Your task to perform on an android device: set the stopwatch Image 0: 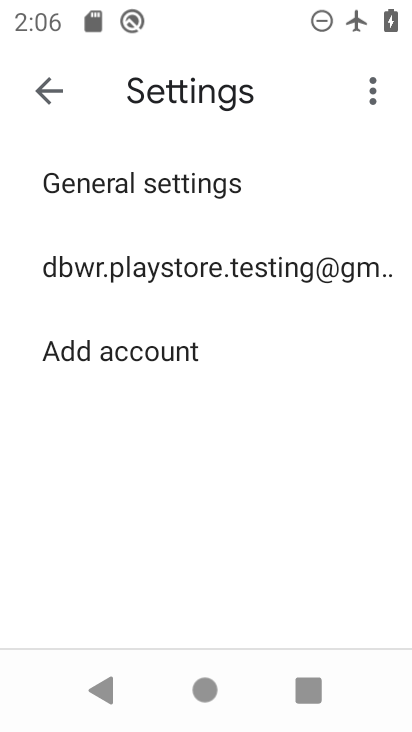
Step 0: press home button
Your task to perform on an android device: set the stopwatch Image 1: 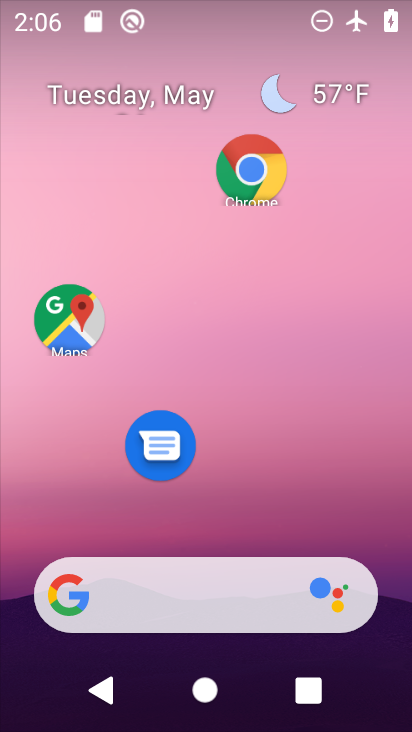
Step 1: drag from (241, 603) to (244, 61)
Your task to perform on an android device: set the stopwatch Image 2: 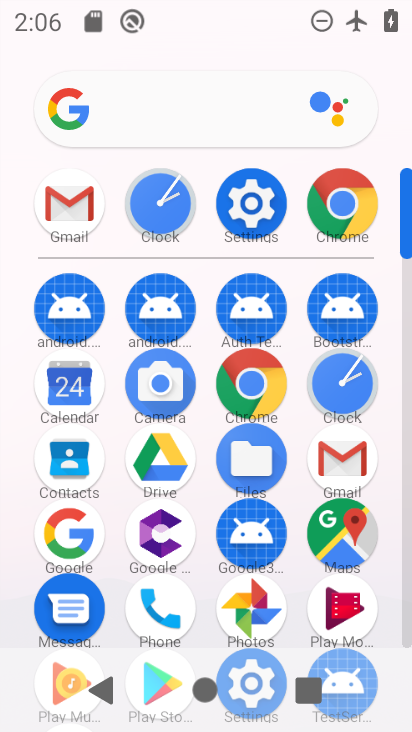
Step 2: click (351, 381)
Your task to perform on an android device: set the stopwatch Image 3: 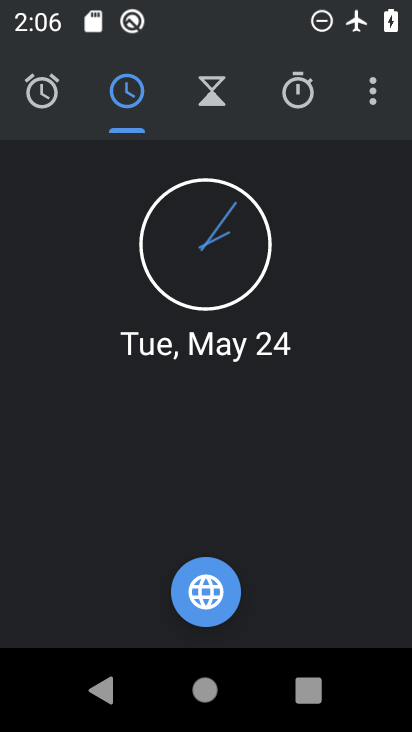
Step 3: click (303, 95)
Your task to perform on an android device: set the stopwatch Image 4: 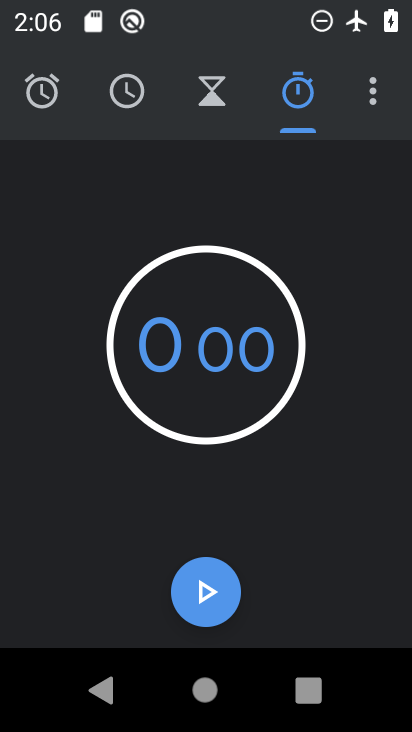
Step 4: click (205, 341)
Your task to perform on an android device: set the stopwatch Image 5: 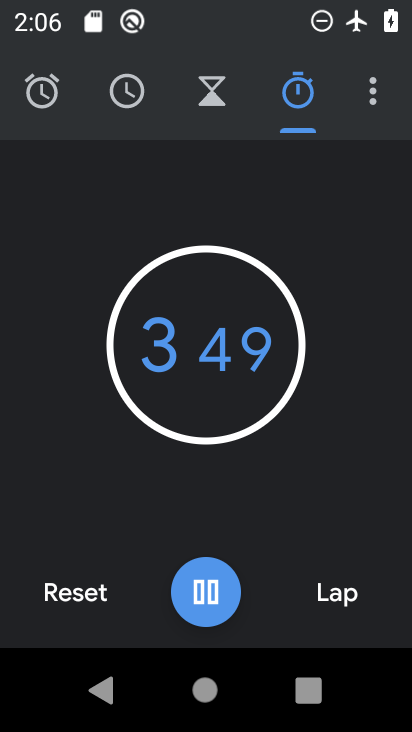
Step 5: type "87575"
Your task to perform on an android device: set the stopwatch Image 6: 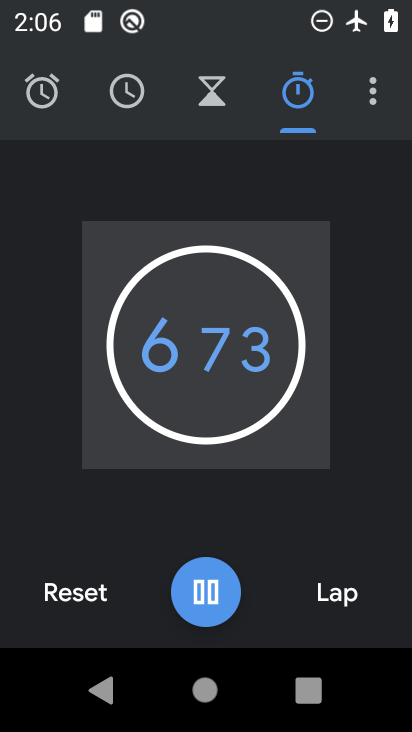
Step 6: task complete